Your task to perform on an android device: What is the recent news? Image 0: 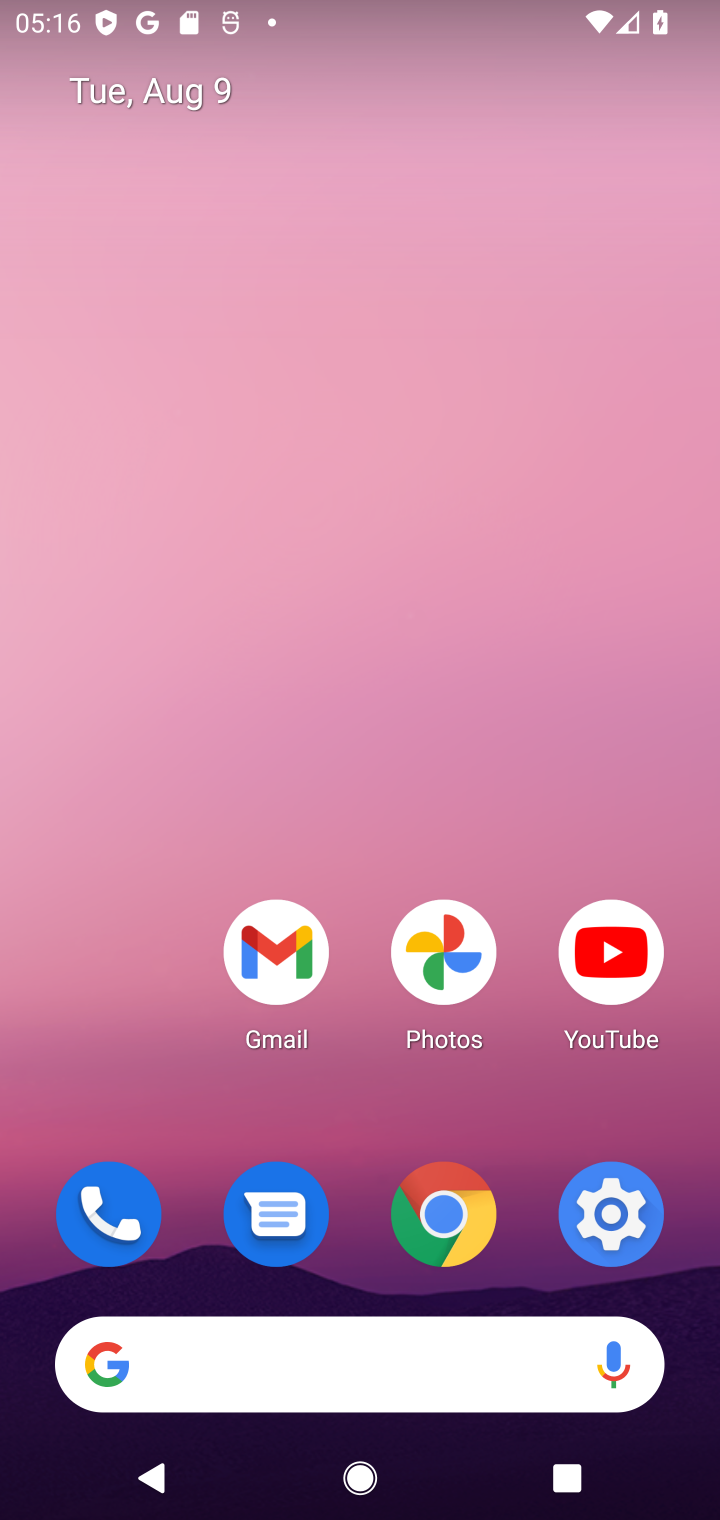
Step 0: press home button
Your task to perform on an android device: What is the recent news? Image 1: 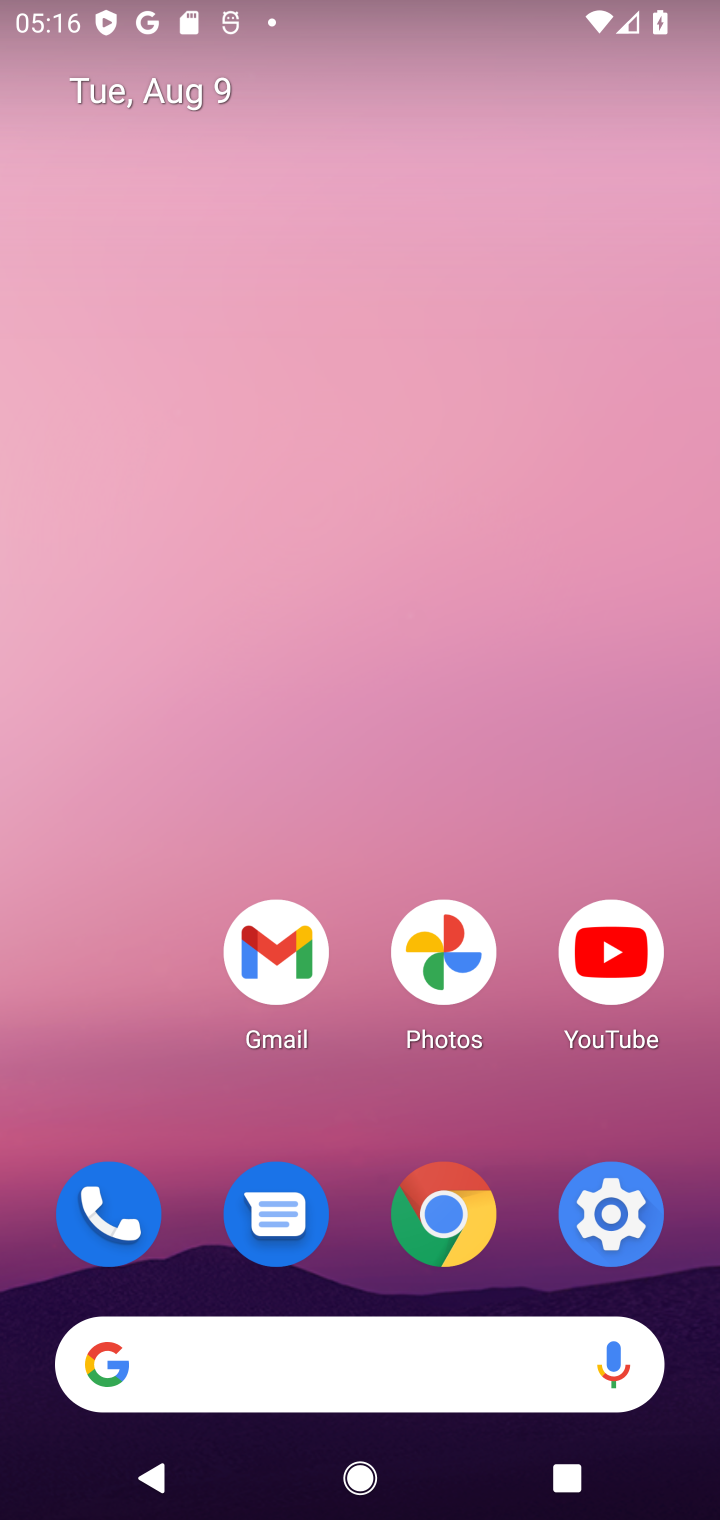
Step 1: click (246, 1332)
Your task to perform on an android device: What is the recent news? Image 2: 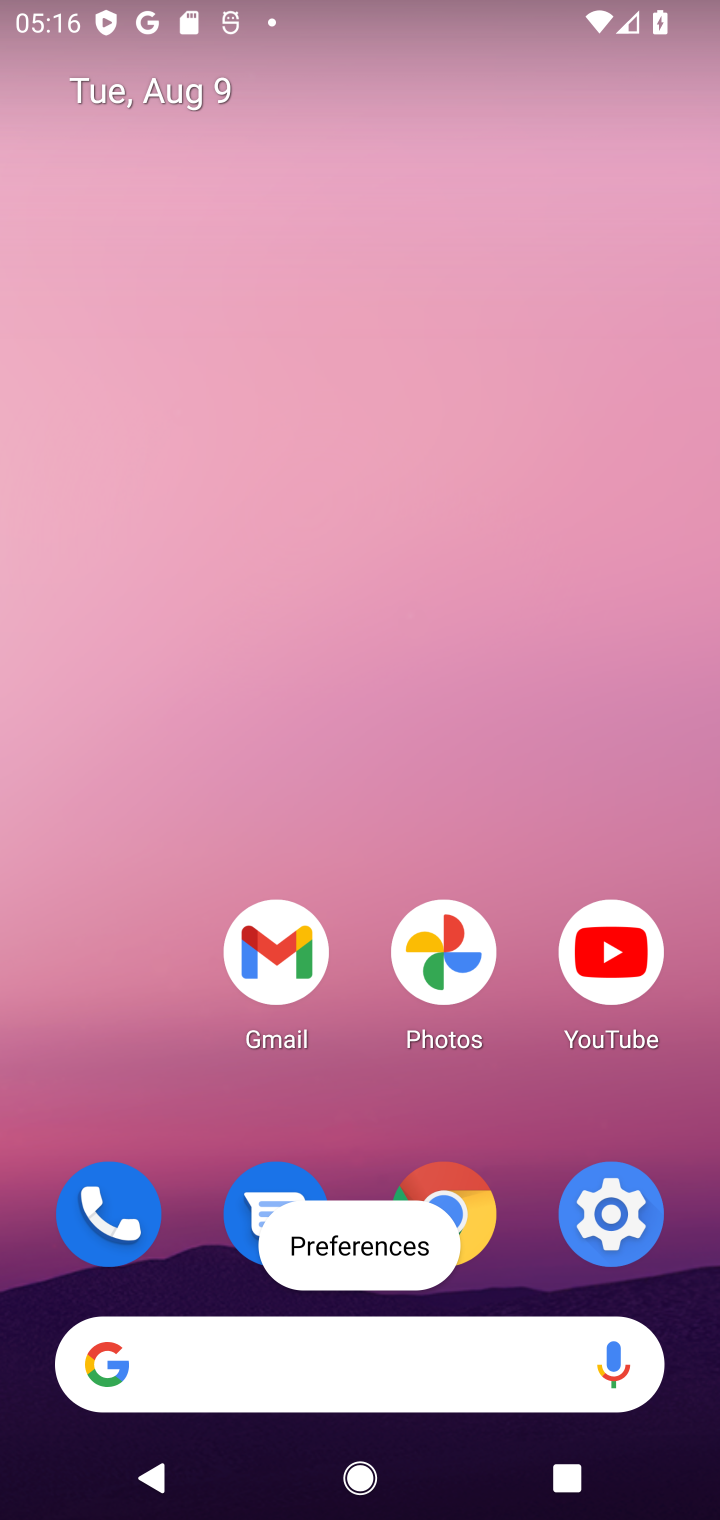
Step 2: click (263, 1352)
Your task to perform on an android device: What is the recent news? Image 3: 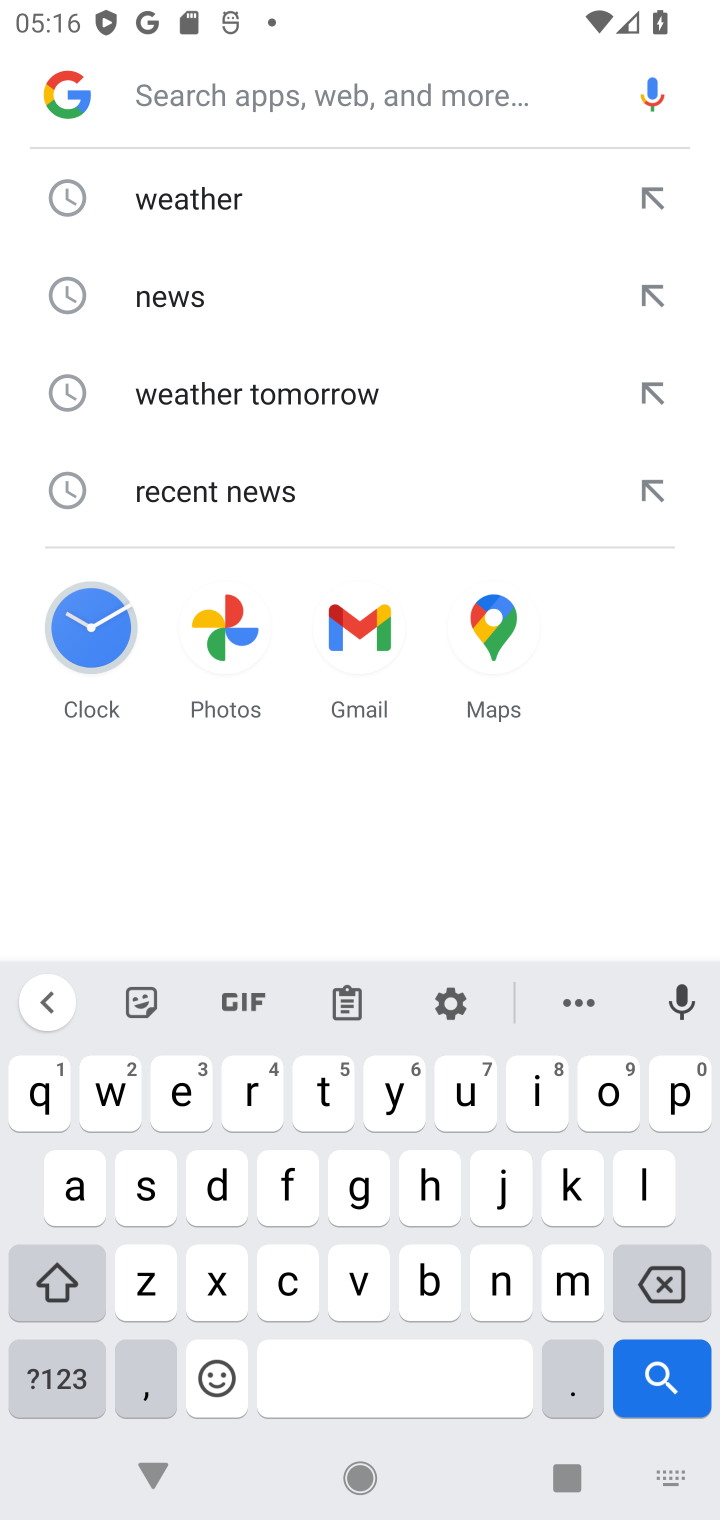
Step 3: click (258, 510)
Your task to perform on an android device: What is the recent news? Image 4: 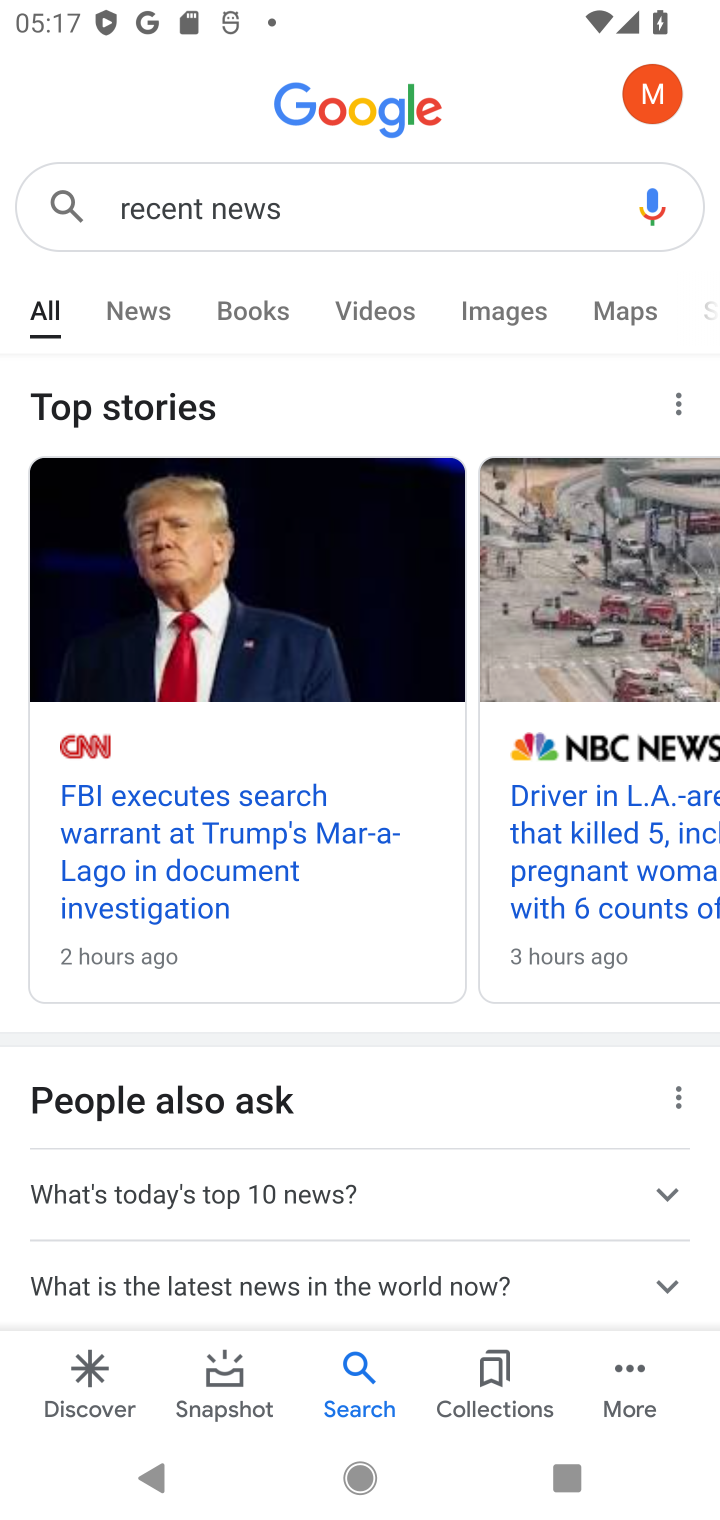
Step 4: task complete